Your task to perform on an android device: Open my contact list Image 0: 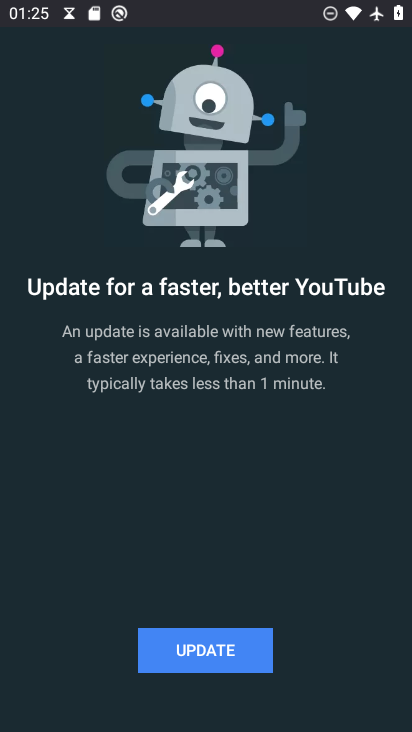
Step 0: press home button
Your task to perform on an android device: Open my contact list Image 1: 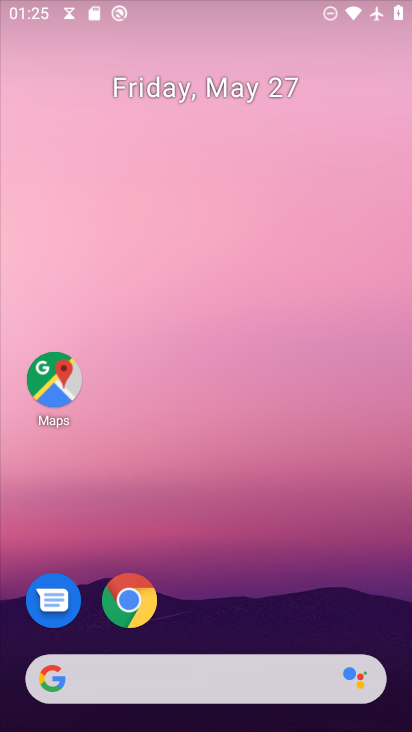
Step 1: drag from (257, 591) to (317, 7)
Your task to perform on an android device: Open my contact list Image 2: 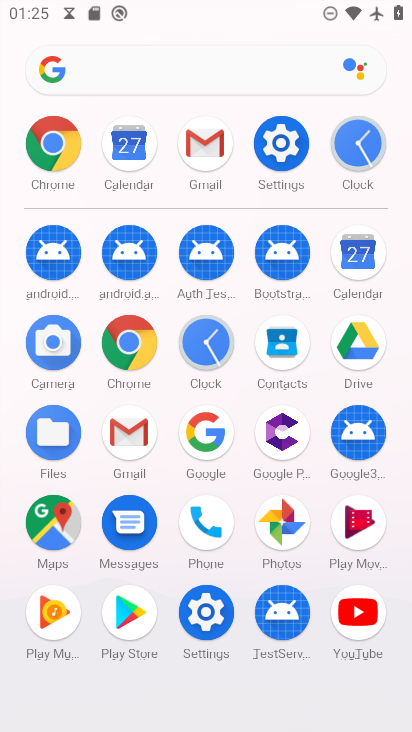
Step 2: click (351, 257)
Your task to perform on an android device: Open my contact list Image 3: 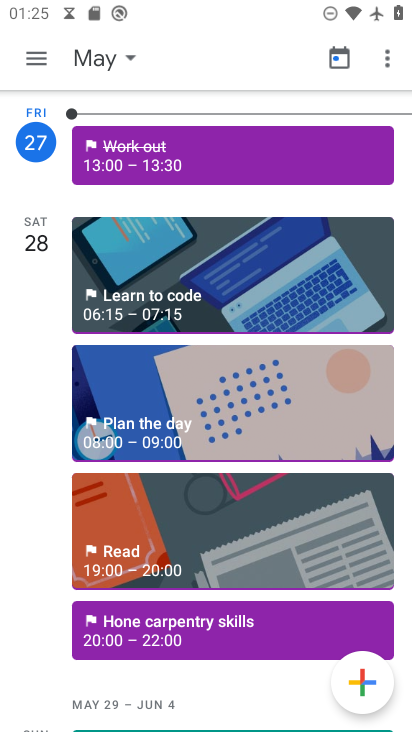
Step 3: press home button
Your task to perform on an android device: Open my contact list Image 4: 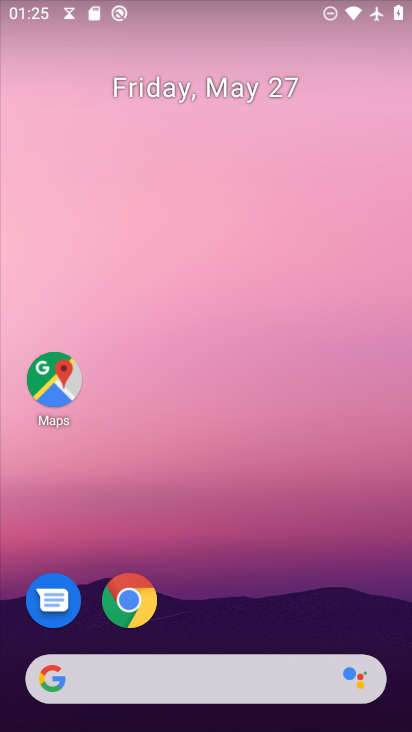
Step 4: drag from (175, 536) to (222, 1)
Your task to perform on an android device: Open my contact list Image 5: 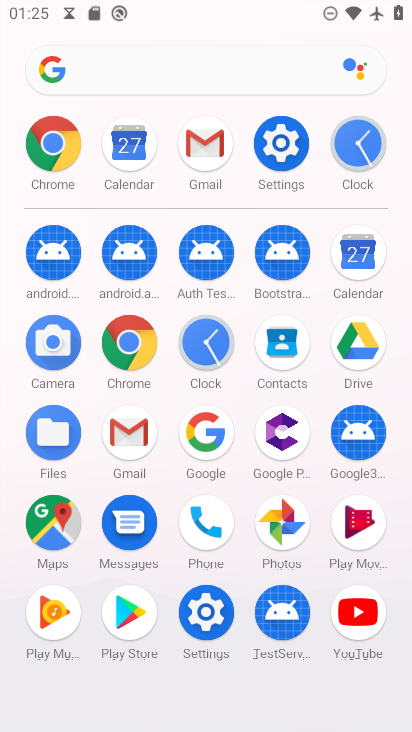
Step 5: click (269, 345)
Your task to perform on an android device: Open my contact list Image 6: 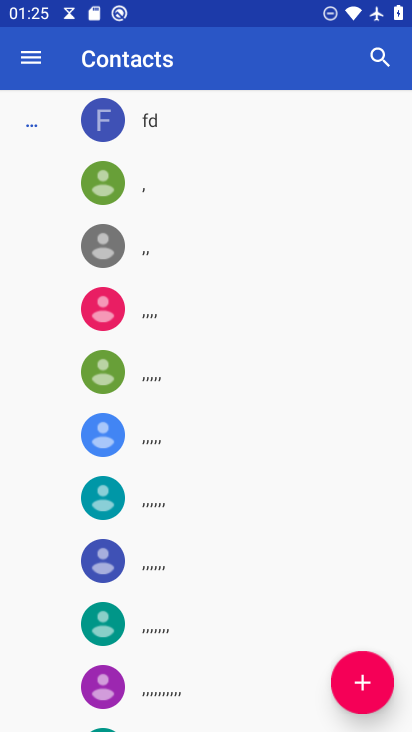
Step 6: task complete